Your task to perform on an android device: toggle sleep mode Image 0: 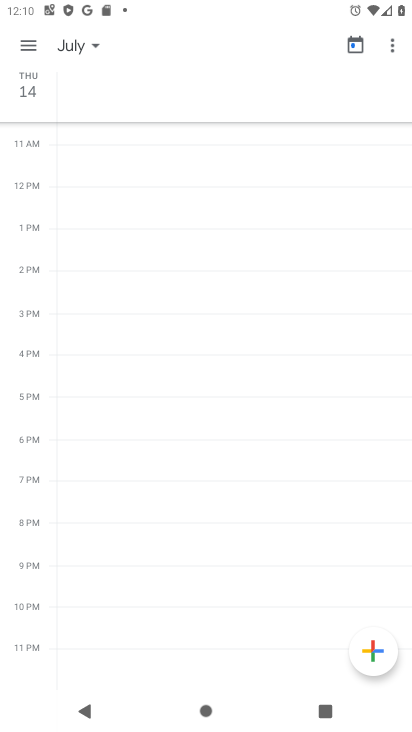
Step 0: press home button
Your task to perform on an android device: toggle sleep mode Image 1: 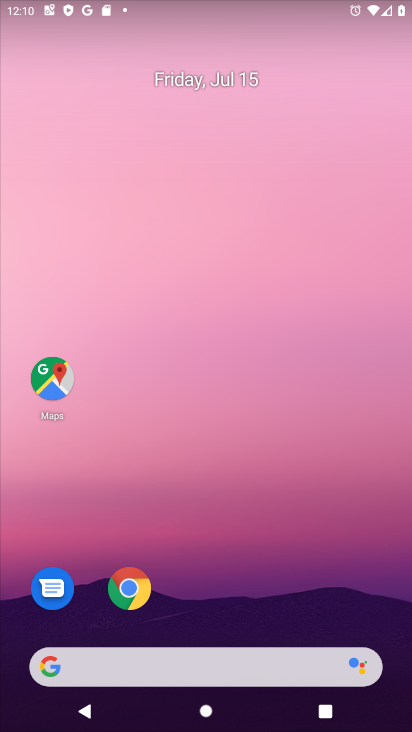
Step 1: drag from (153, 667) to (305, 173)
Your task to perform on an android device: toggle sleep mode Image 2: 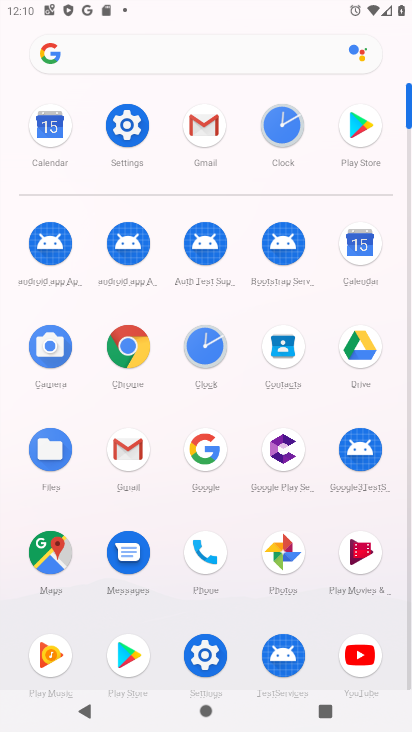
Step 2: click (129, 121)
Your task to perform on an android device: toggle sleep mode Image 3: 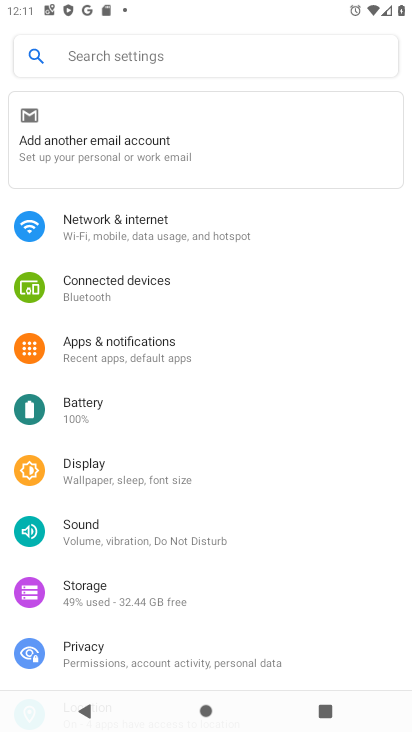
Step 3: click (143, 481)
Your task to perform on an android device: toggle sleep mode Image 4: 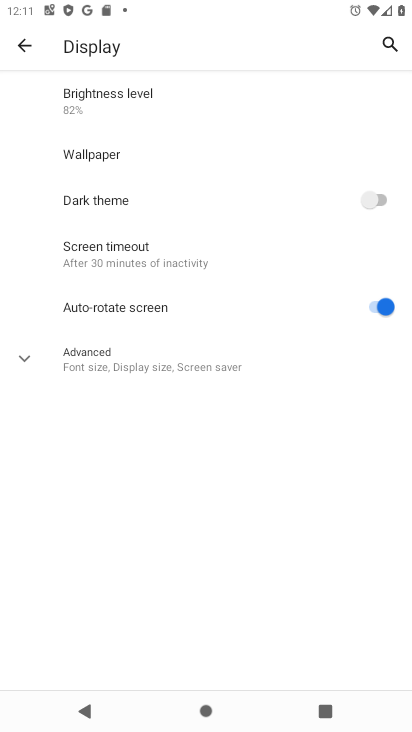
Step 4: click (163, 364)
Your task to perform on an android device: toggle sleep mode Image 5: 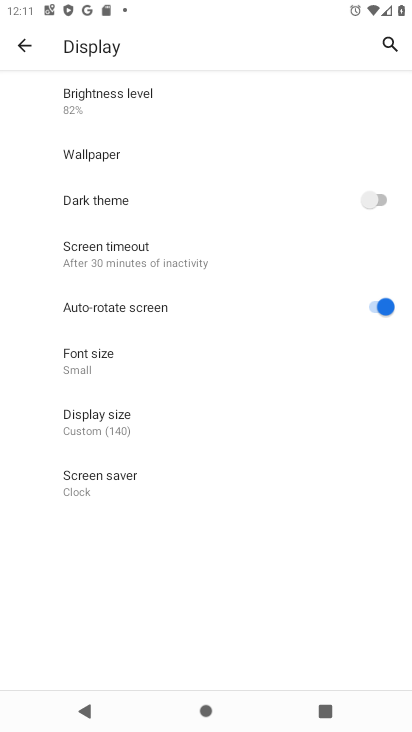
Step 5: task complete